Your task to perform on an android device: Open display settings Image 0: 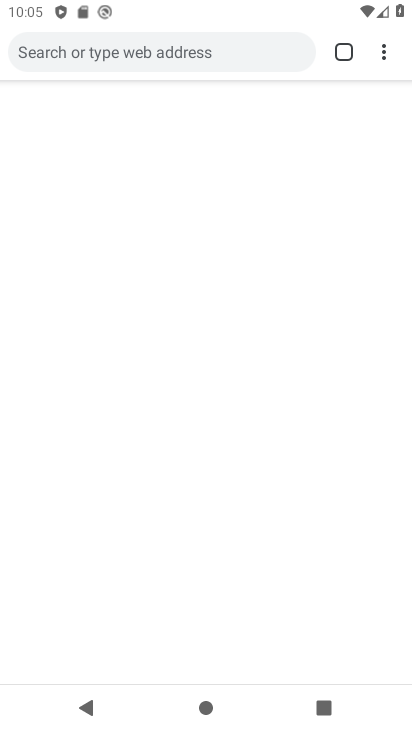
Step 0: drag from (213, 488) to (265, 186)
Your task to perform on an android device: Open display settings Image 1: 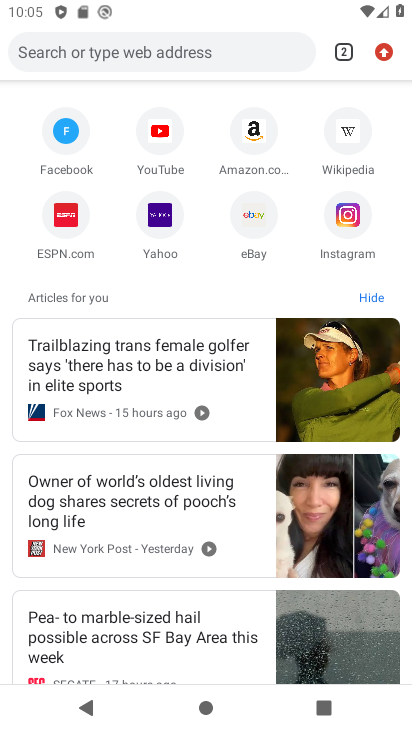
Step 1: press back button
Your task to perform on an android device: Open display settings Image 2: 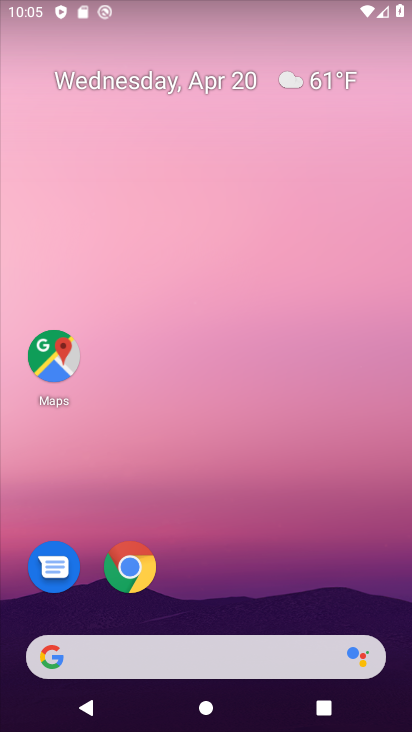
Step 2: drag from (229, 558) to (280, 55)
Your task to perform on an android device: Open display settings Image 3: 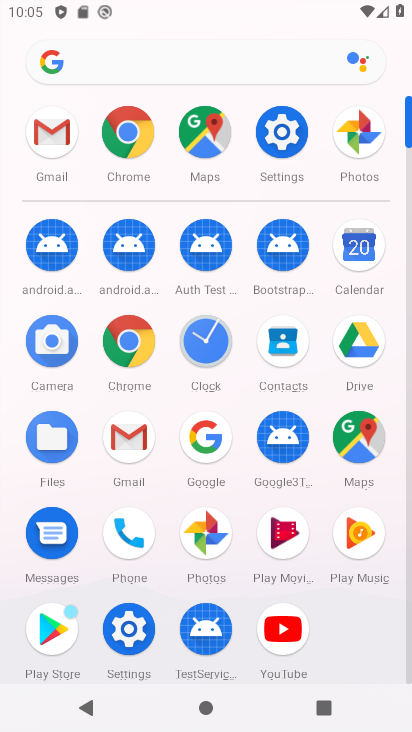
Step 3: click (288, 120)
Your task to perform on an android device: Open display settings Image 4: 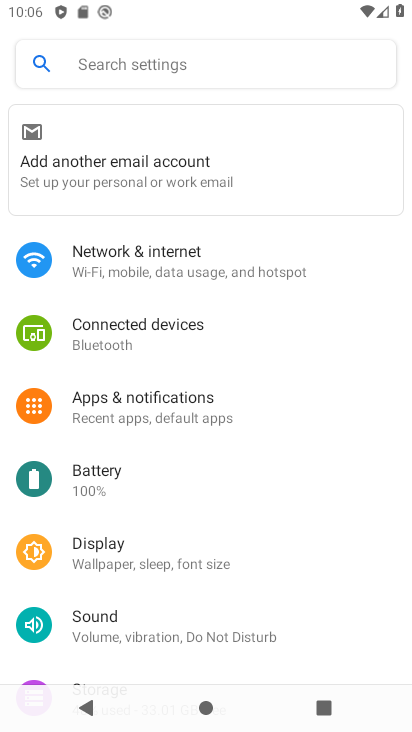
Step 4: click (115, 542)
Your task to perform on an android device: Open display settings Image 5: 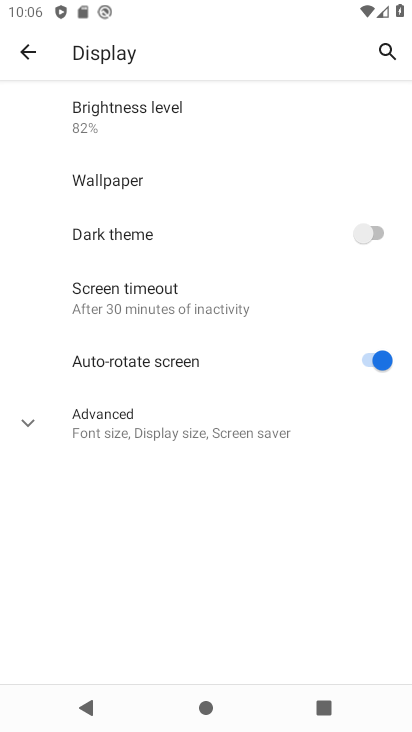
Step 5: task complete